Your task to perform on an android device: set an alarm Image 0: 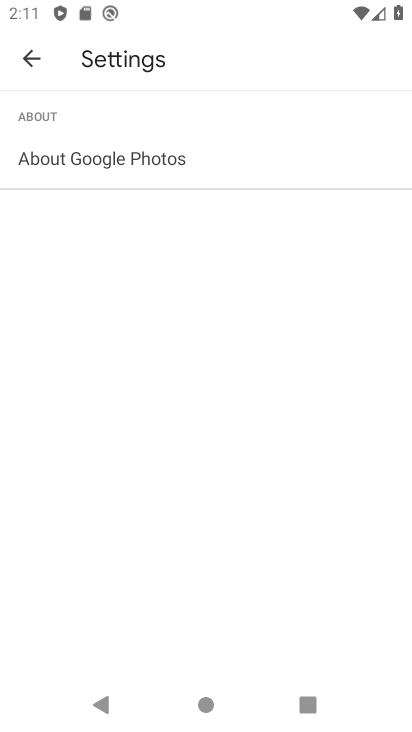
Step 0: press home button
Your task to perform on an android device: set an alarm Image 1: 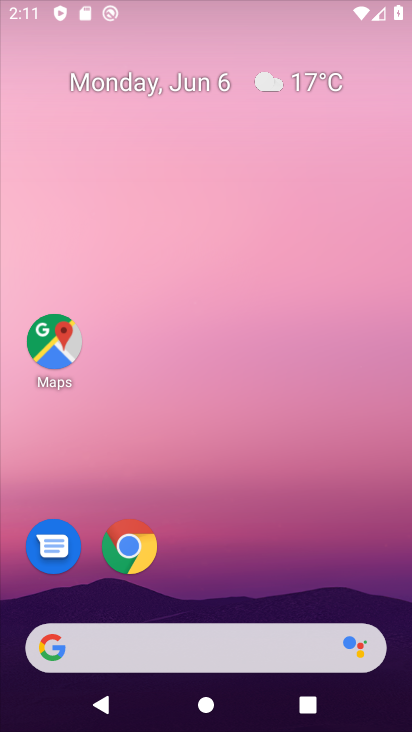
Step 1: drag from (168, 462) to (168, 218)
Your task to perform on an android device: set an alarm Image 2: 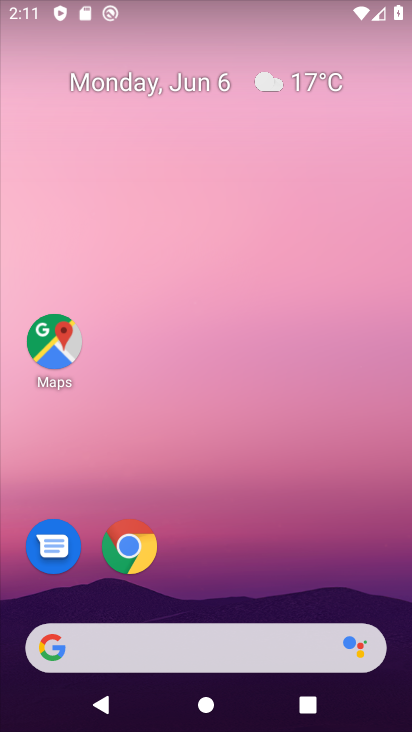
Step 2: drag from (196, 588) to (201, 146)
Your task to perform on an android device: set an alarm Image 3: 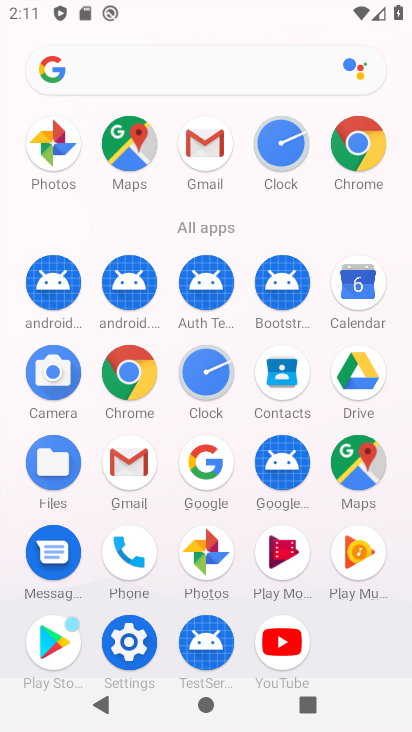
Step 3: click (216, 358)
Your task to perform on an android device: set an alarm Image 4: 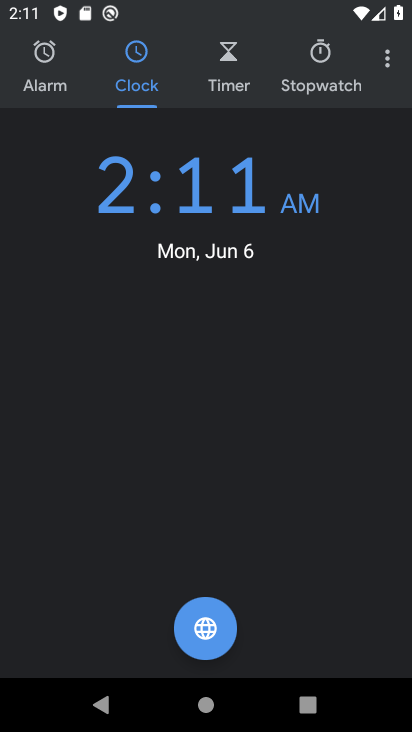
Step 4: click (42, 86)
Your task to perform on an android device: set an alarm Image 5: 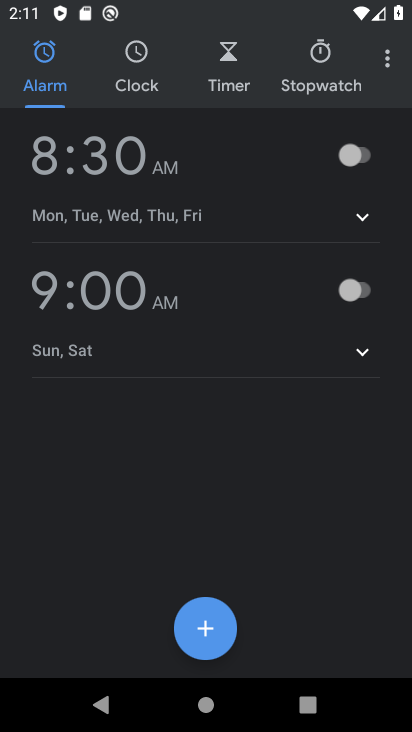
Step 5: click (348, 143)
Your task to perform on an android device: set an alarm Image 6: 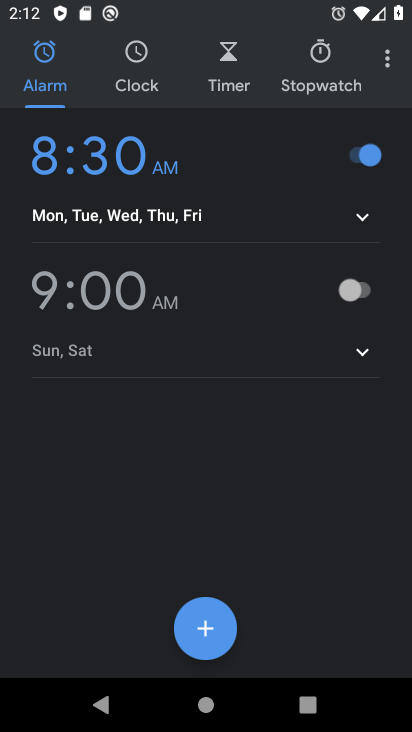
Step 6: task complete